Your task to perform on an android device: Open eBay Image 0: 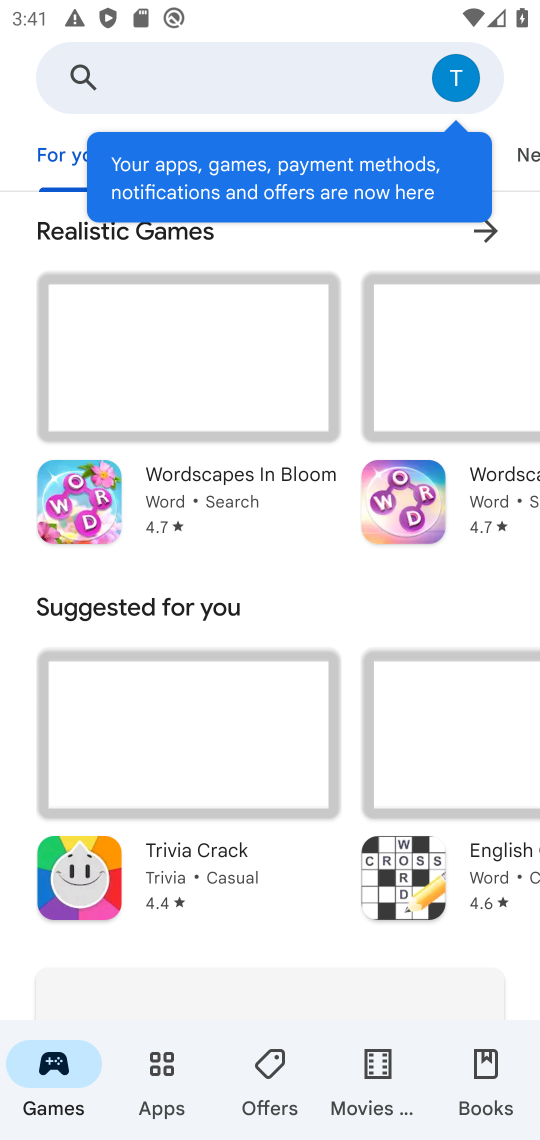
Step 0: press home button
Your task to perform on an android device: Open eBay Image 1: 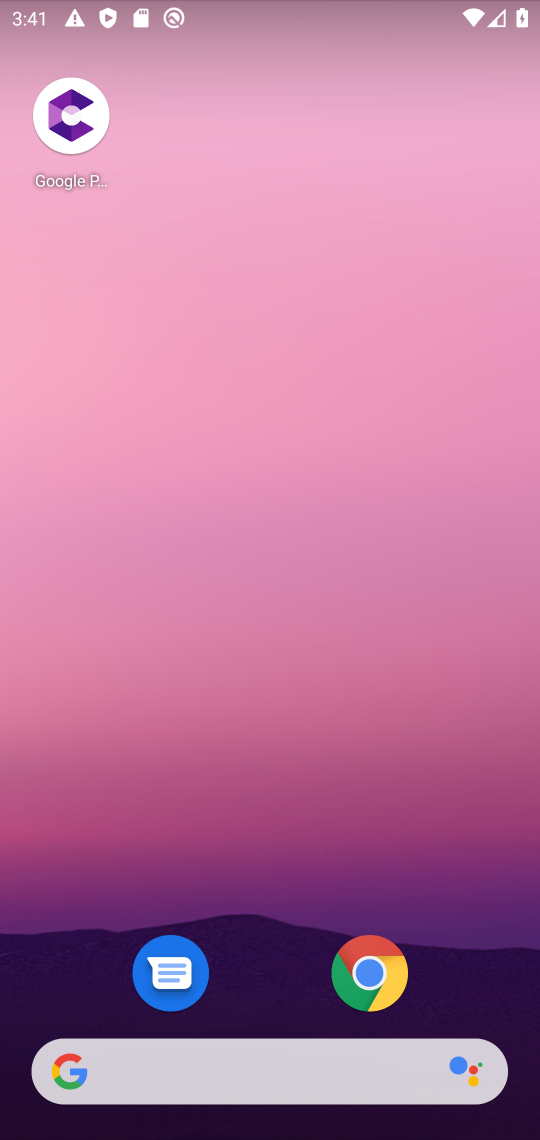
Step 1: click (264, 1072)
Your task to perform on an android device: Open eBay Image 2: 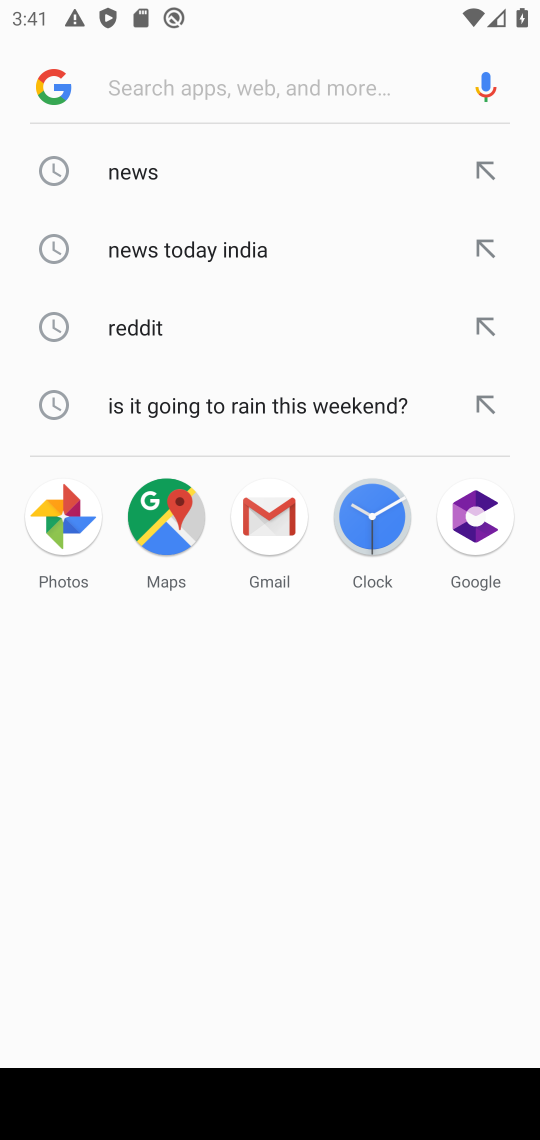
Step 2: type "ebay"
Your task to perform on an android device: Open eBay Image 3: 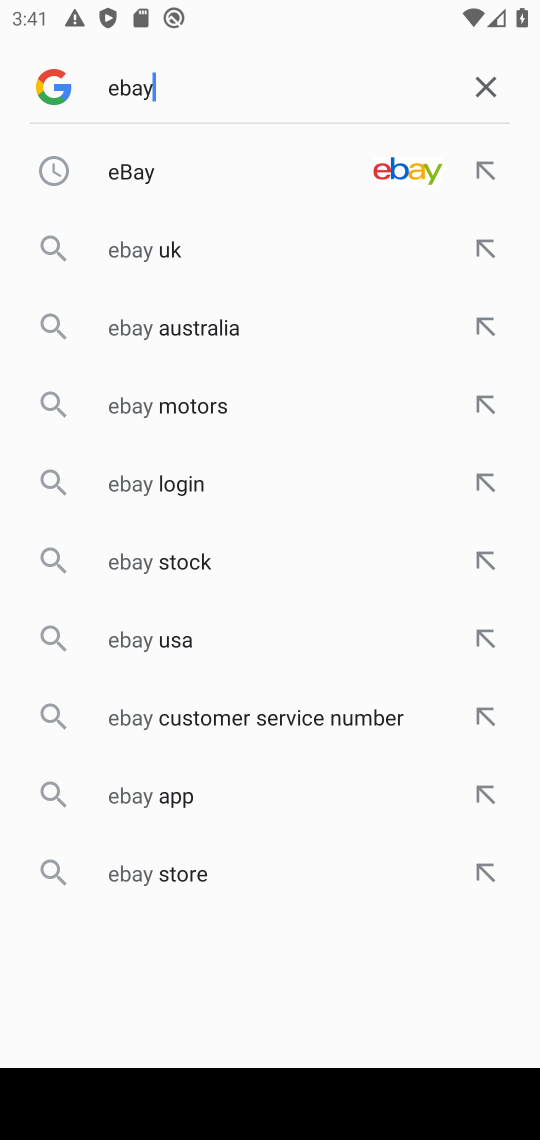
Step 3: click (321, 168)
Your task to perform on an android device: Open eBay Image 4: 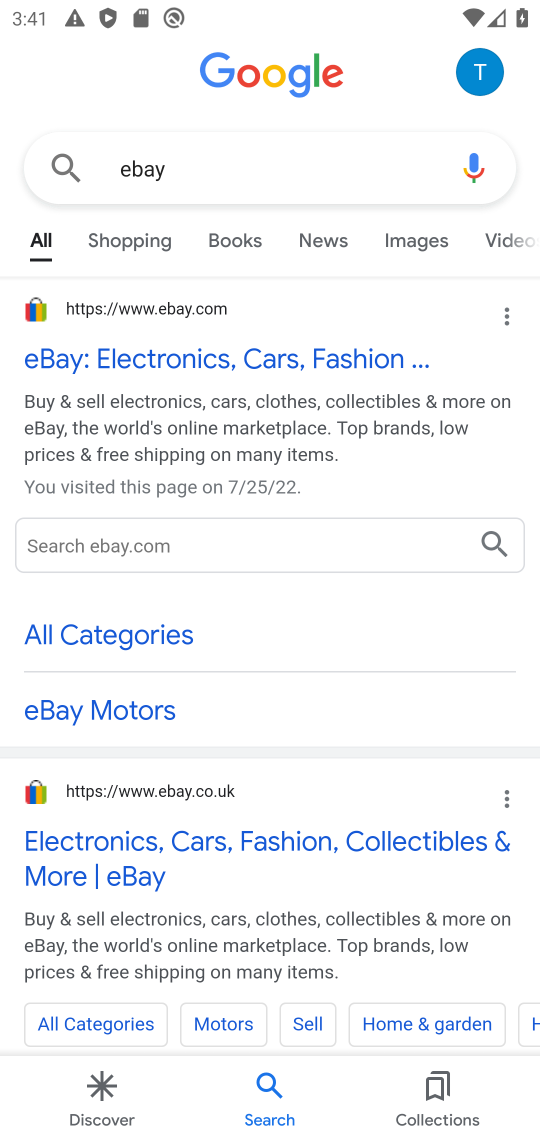
Step 4: click (166, 358)
Your task to perform on an android device: Open eBay Image 5: 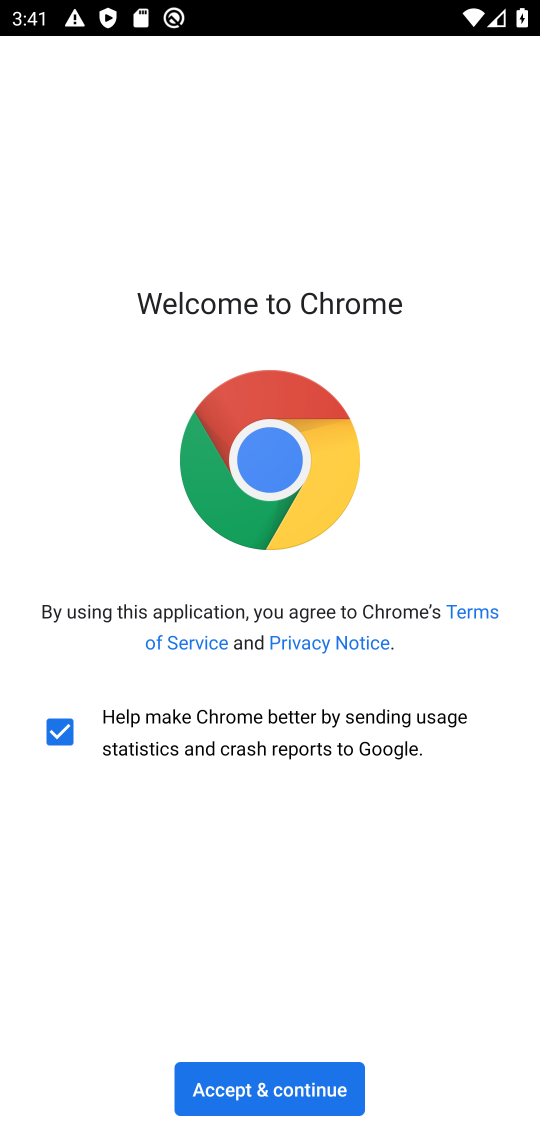
Step 5: click (340, 1081)
Your task to perform on an android device: Open eBay Image 6: 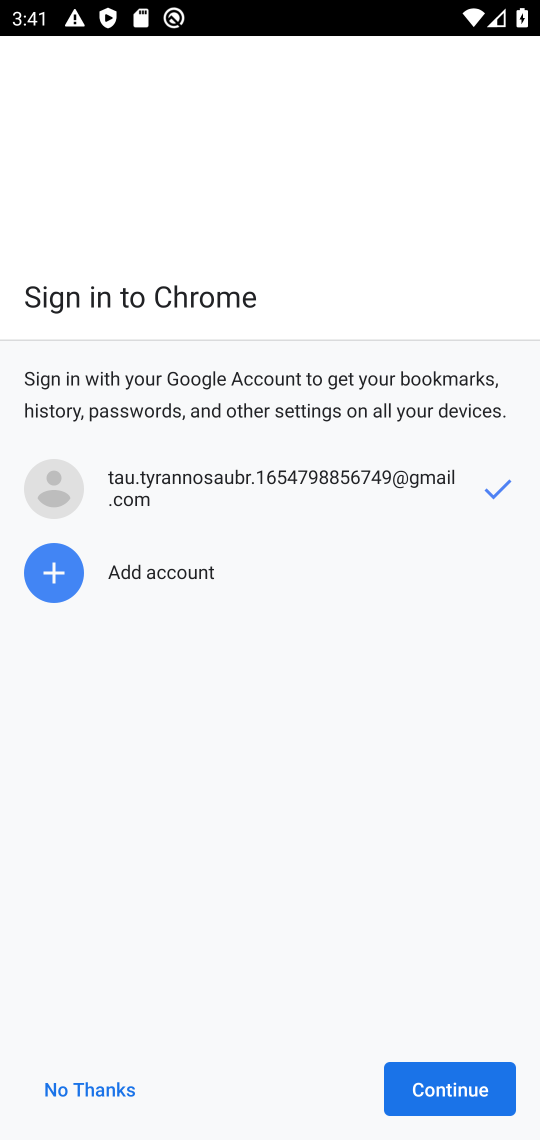
Step 6: click (413, 1085)
Your task to perform on an android device: Open eBay Image 7: 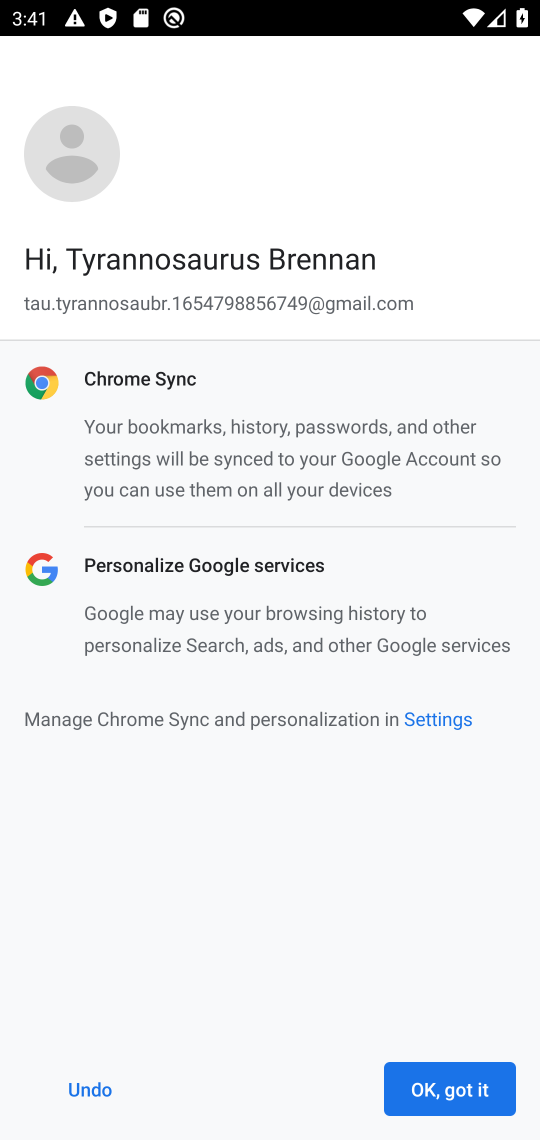
Step 7: click (439, 1090)
Your task to perform on an android device: Open eBay Image 8: 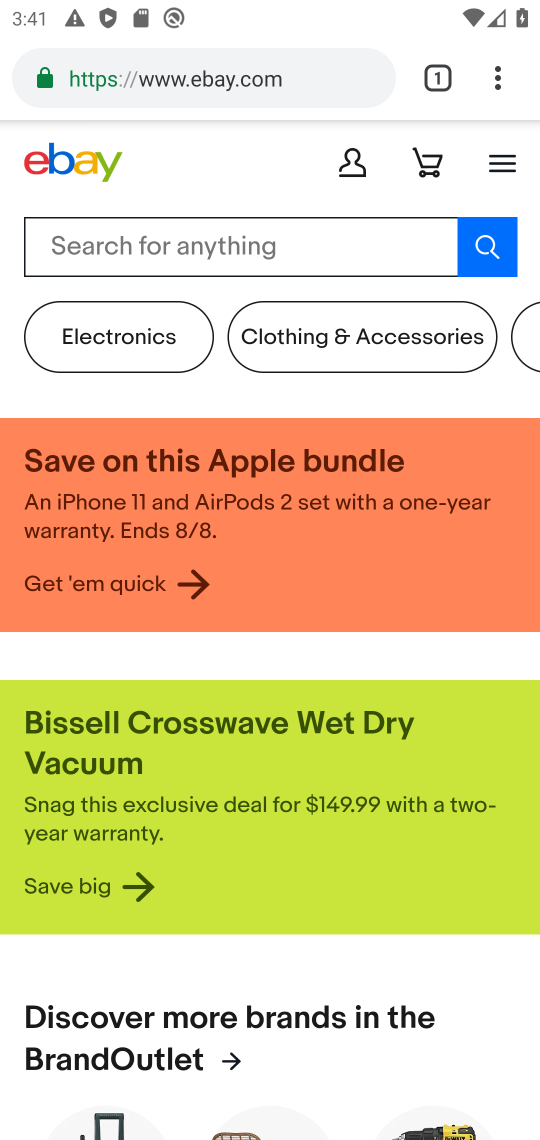
Step 8: task complete